Your task to perform on an android device: Go to Wikipedia Image 0: 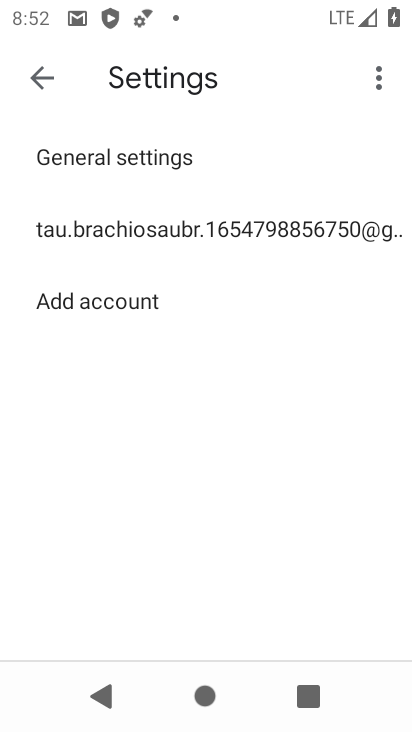
Step 0: press back button
Your task to perform on an android device: Go to Wikipedia Image 1: 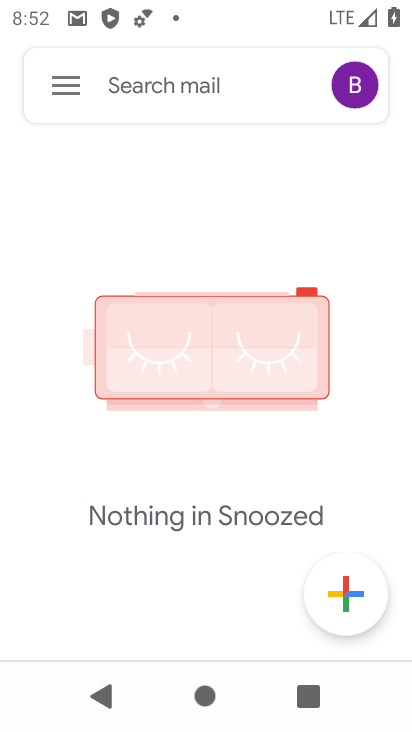
Step 1: press back button
Your task to perform on an android device: Go to Wikipedia Image 2: 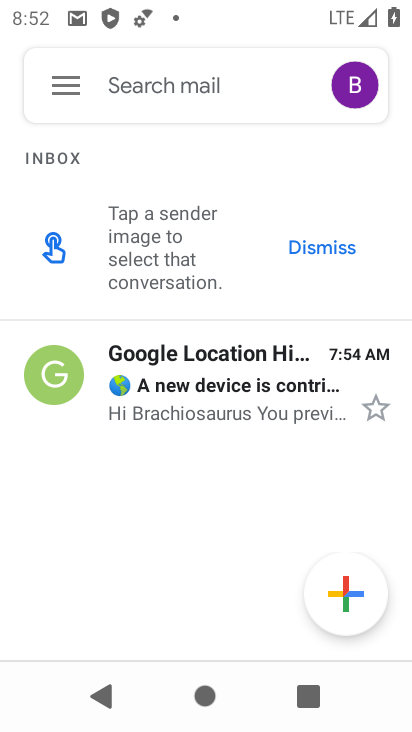
Step 2: press back button
Your task to perform on an android device: Go to Wikipedia Image 3: 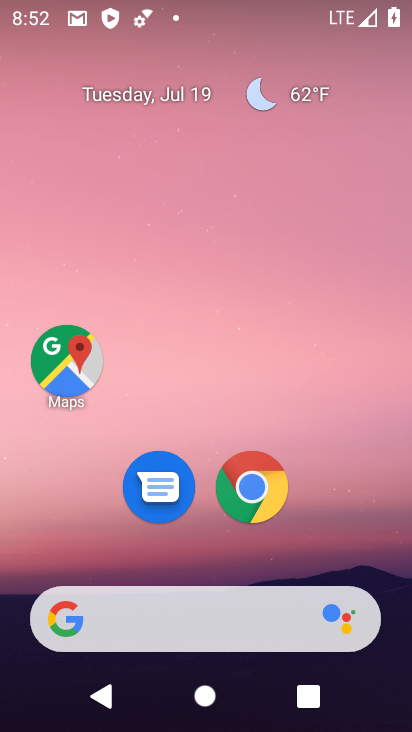
Step 3: click (257, 485)
Your task to perform on an android device: Go to Wikipedia Image 4: 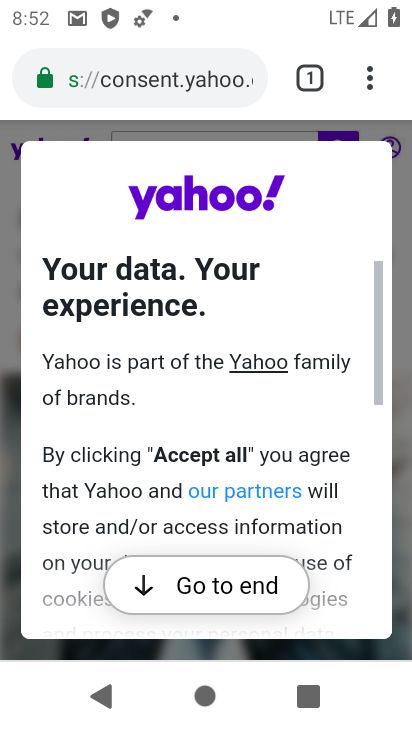
Step 4: click (308, 77)
Your task to perform on an android device: Go to Wikipedia Image 5: 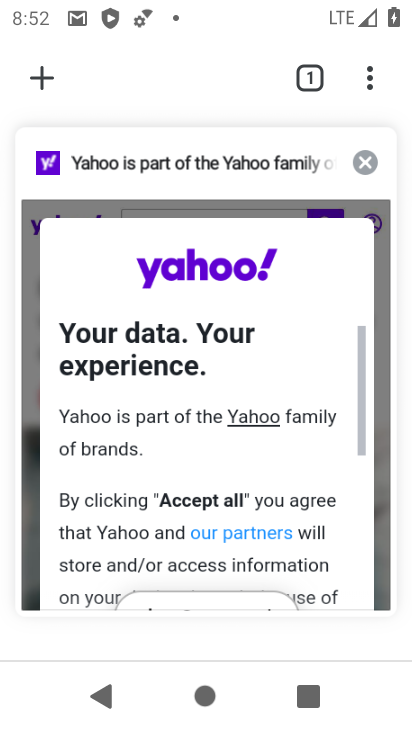
Step 5: click (47, 66)
Your task to perform on an android device: Go to Wikipedia Image 6: 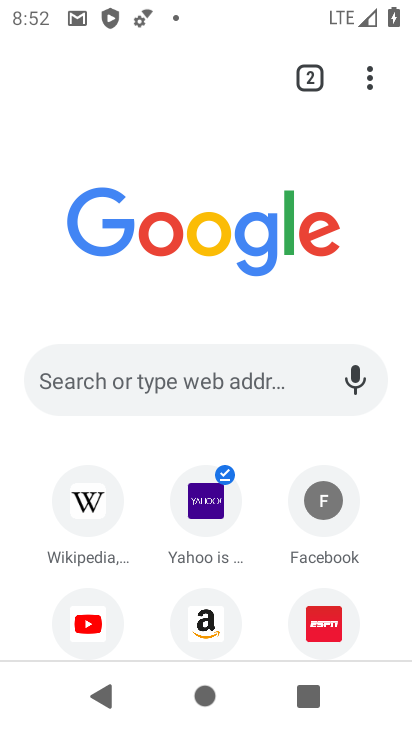
Step 6: click (102, 521)
Your task to perform on an android device: Go to Wikipedia Image 7: 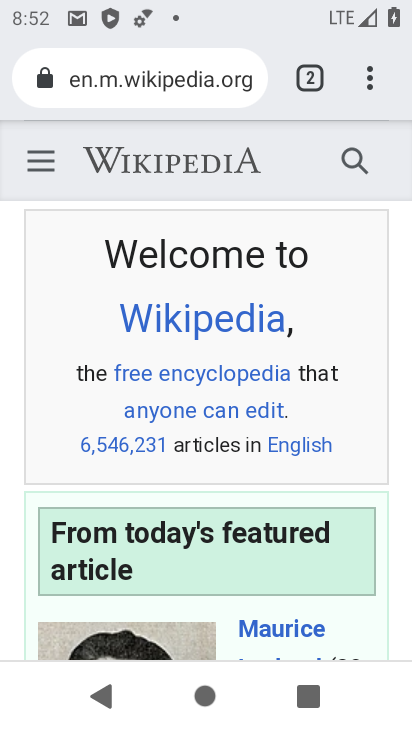
Step 7: task complete